Your task to perform on an android device: Do I have any events this weekend? Image 0: 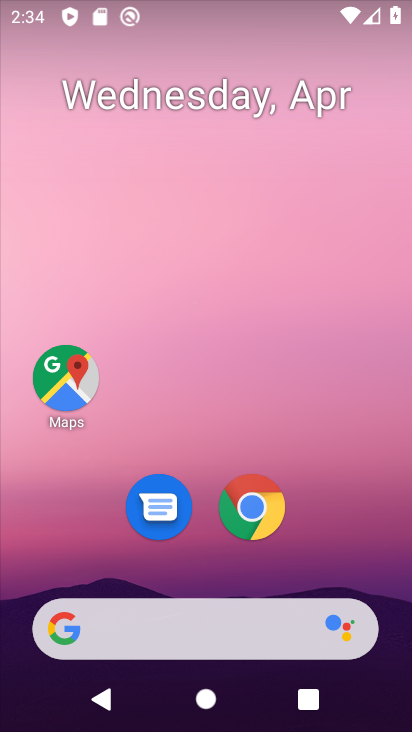
Step 0: click (272, 284)
Your task to perform on an android device: Do I have any events this weekend? Image 1: 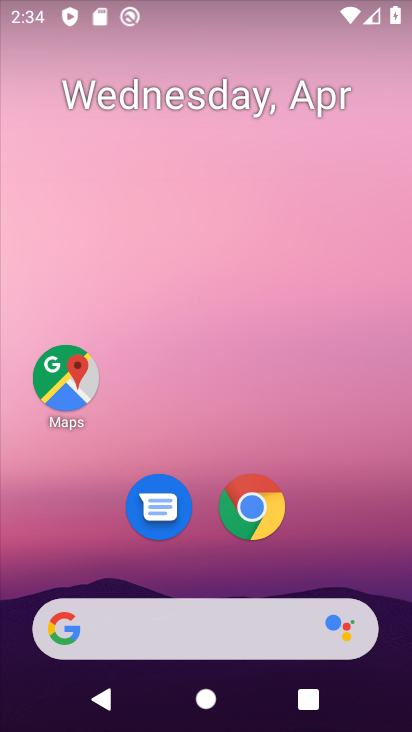
Step 1: drag from (263, 620) to (251, 192)
Your task to perform on an android device: Do I have any events this weekend? Image 2: 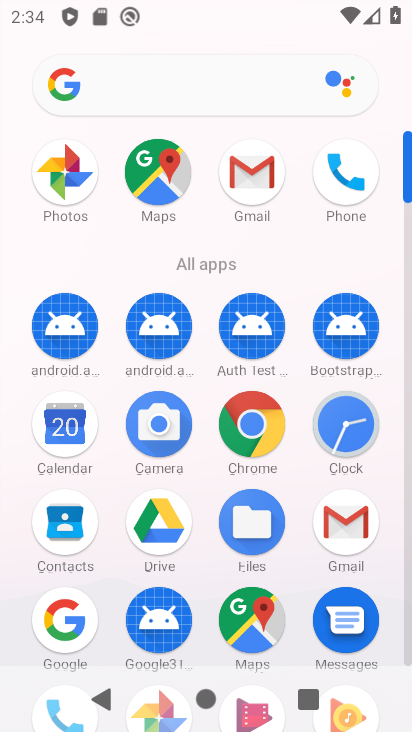
Step 2: click (73, 420)
Your task to perform on an android device: Do I have any events this weekend? Image 3: 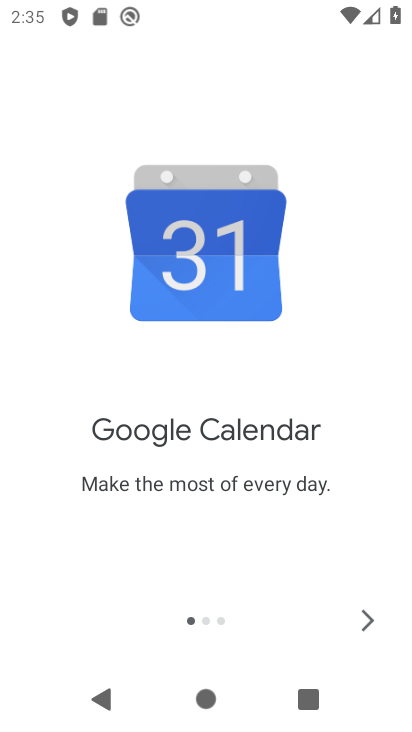
Step 3: click (368, 624)
Your task to perform on an android device: Do I have any events this weekend? Image 4: 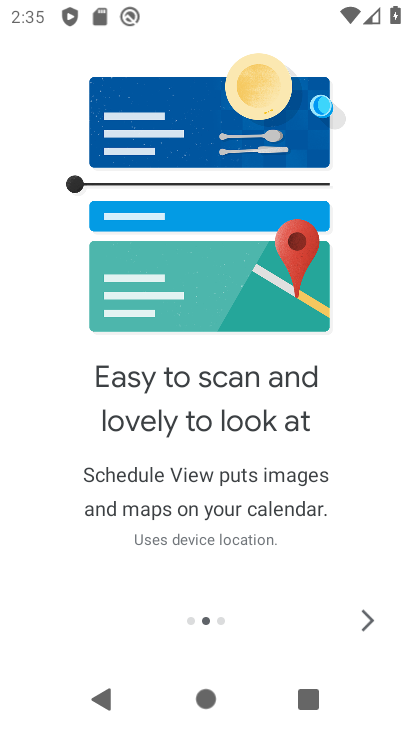
Step 4: click (368, 624)
Your task to perform on an android device: Do I have any events this weekend? Image 5: 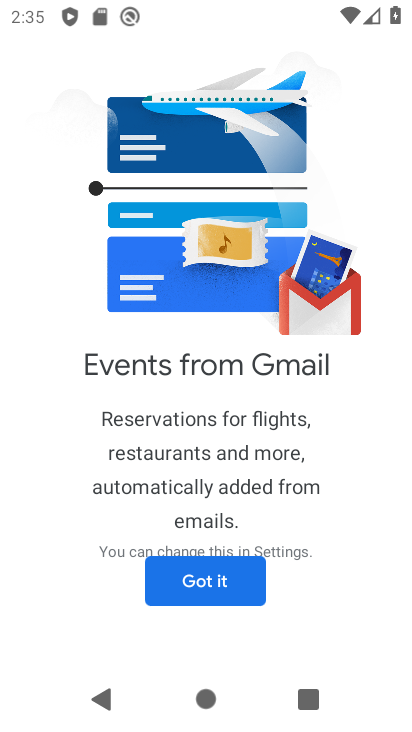
Step 5: click (237, 582)
Your task to perform on an android device: Do I have any events this weekend? Image 6: 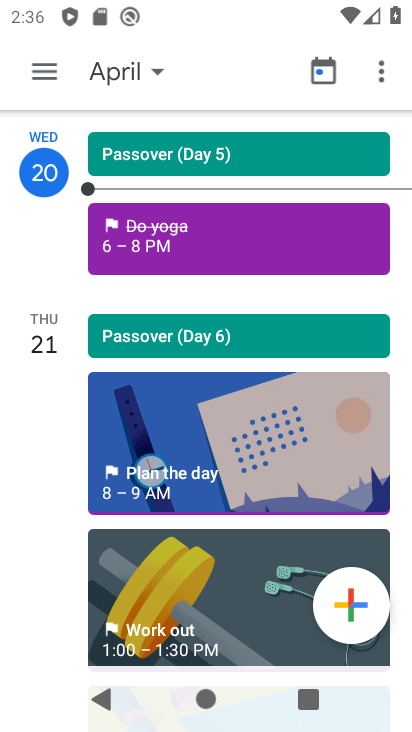
Step 6: click (39, 69)
Your task to perform on an android device: Do I have any events this weekend? Image 7: 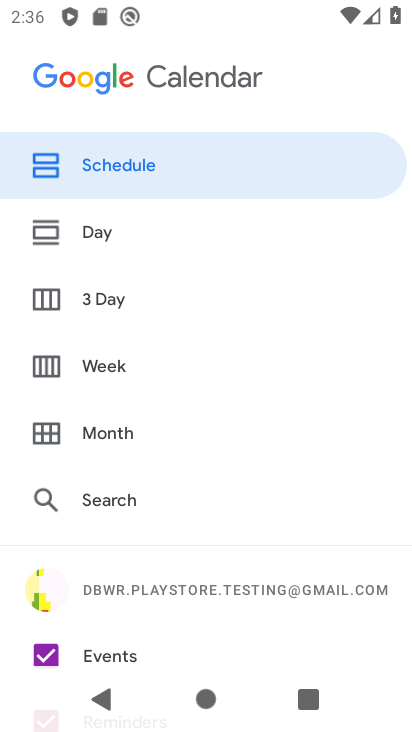
Step 7: click (118, 357)
Your task to perform on an android device: Do I have any events this weekend? Image 8: 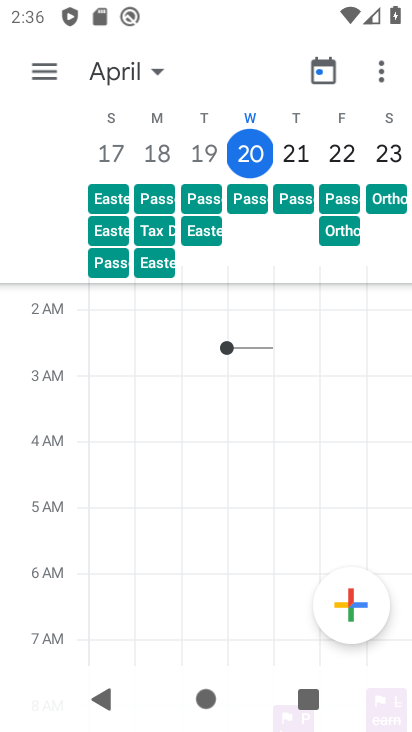
Step 8: task complete